Your task to perform on an android device: Open Google Maps Image 0: 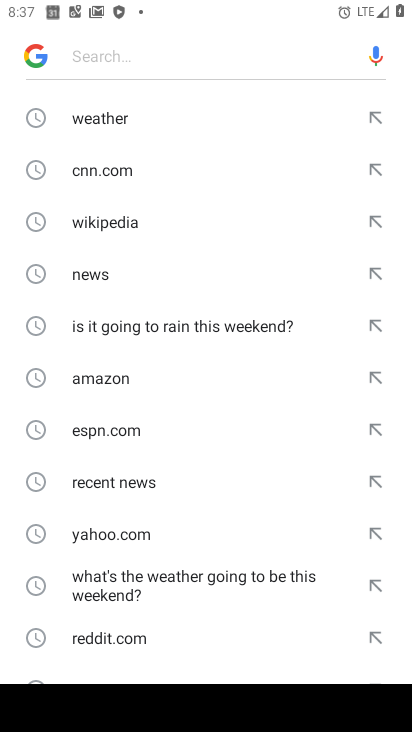
Step 0: press home button
Your task to perform on an android device: Open Google Maps Image 1: 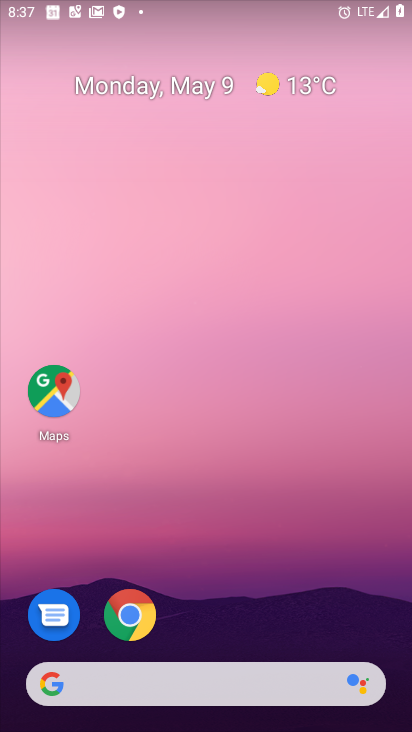
Step 1: click (54, 395)
Your task to perform on an android device: Open Google Maps Image 2: 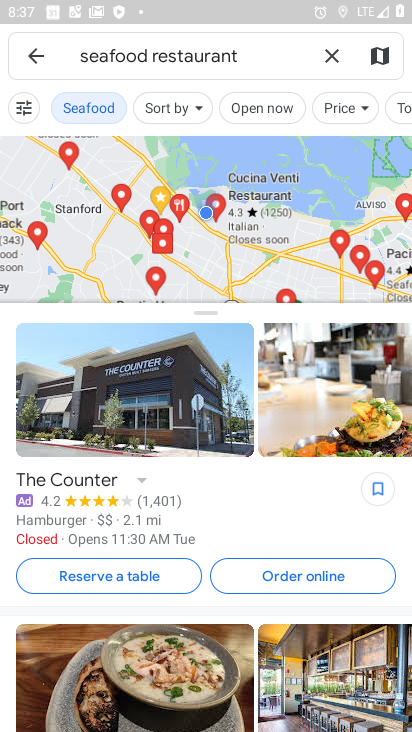
Step 2: task complete